Your task to perform on an android device: open wifi settings Image 0: 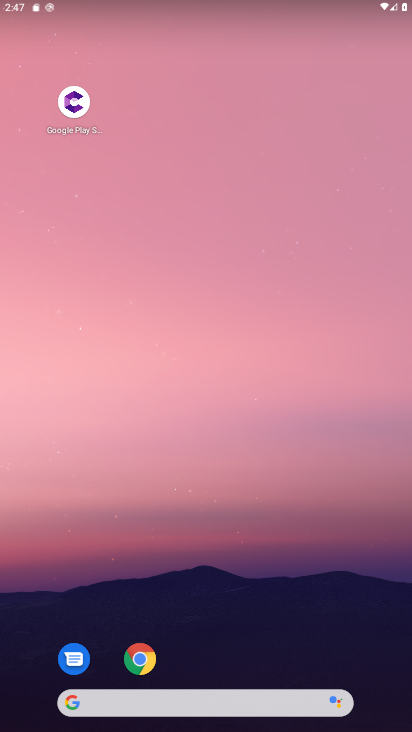
Step 0: drag from (207, 694) to (184, 252)
Your task to perform on an android device: open wifi settings Image 1: 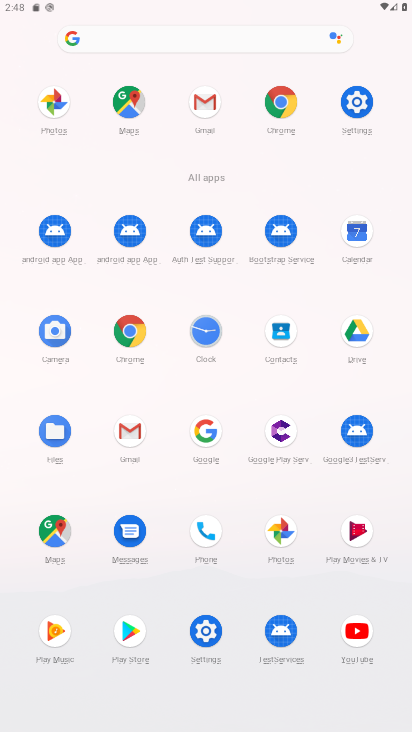
Step 1: click (374, 114)
Your task to perform on an android device: open wifi settings Image 2: 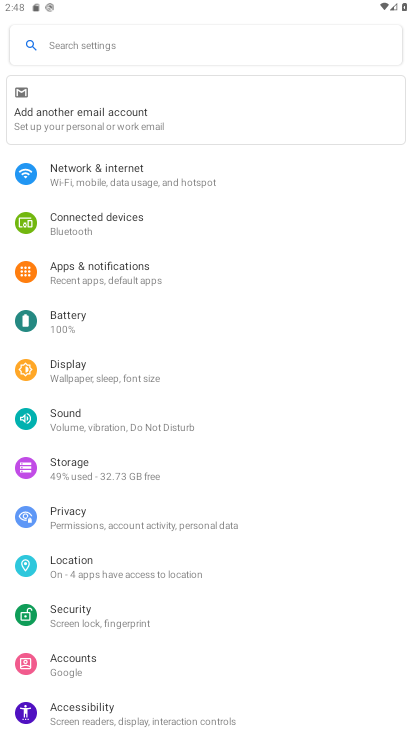
Step 2: click (187, 182)
Your task to perform on an android device: open wifi settings Image 3: 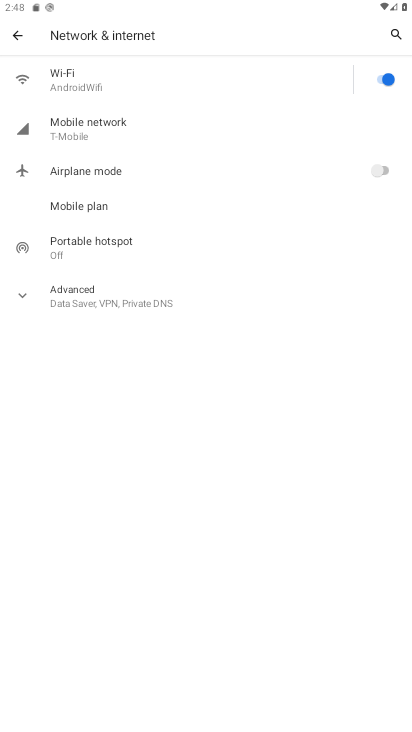
Step 3: click (77, 88)
Your task to perform on an android device: open wifi settings Image 4: 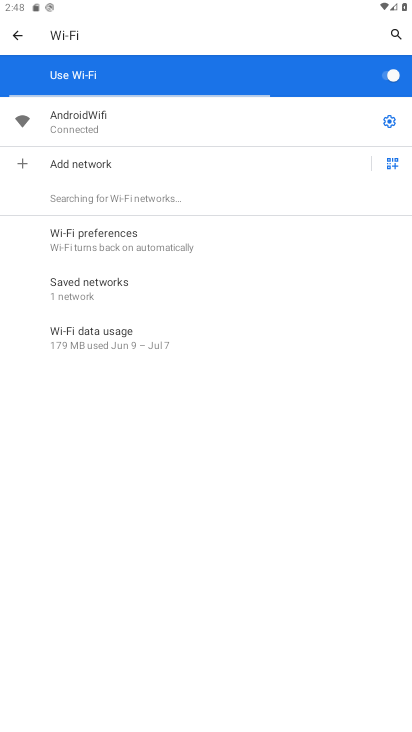
Step 4: task complete